Your task to perform on an android device: open app "WhatsApp Messenger" (install if not already installed), go to login, and select forgot password Image 0: 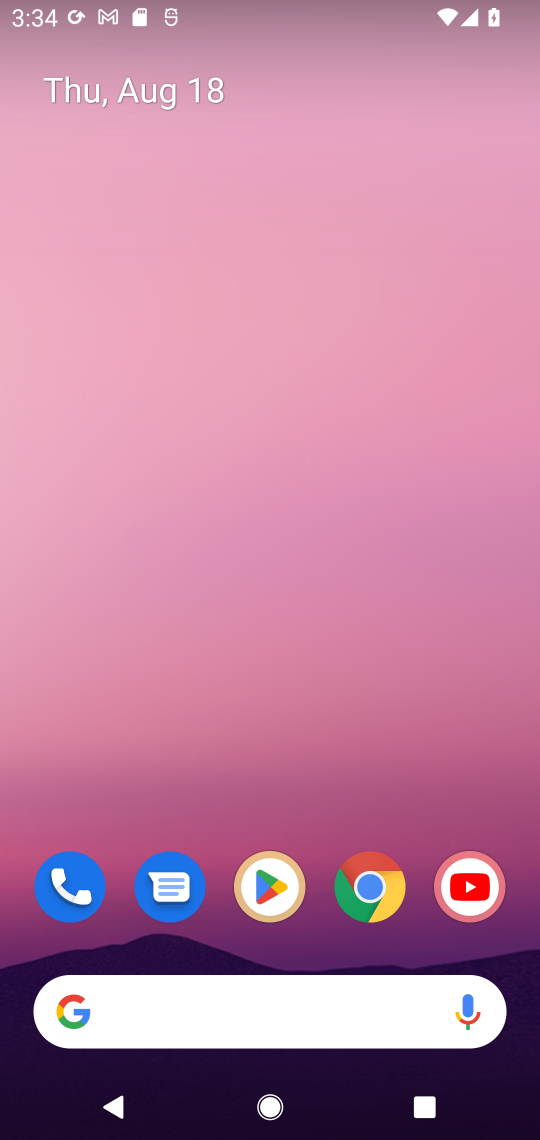
Step 0: press home button
Your task to perform on an android device: open app "WhatsApp Messenger" (install if not already installed), go to login, and select forgot password Image 1: 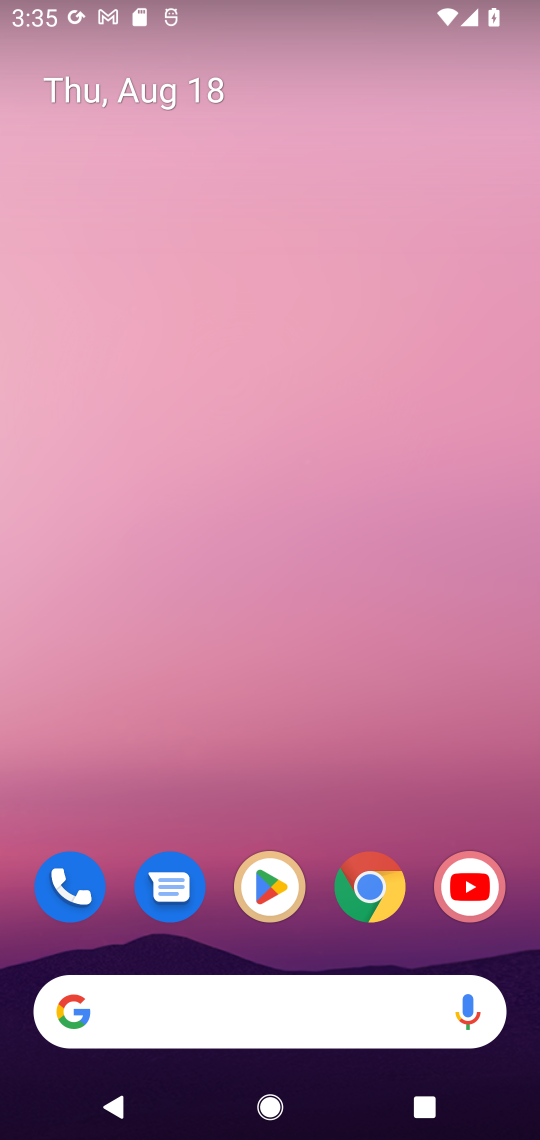
Step 1: click (270, 875)
Your task to perform on an android device: open app "WhatsApp Messenger" (install if not already installed), go to login, and select forgot password Image 2: 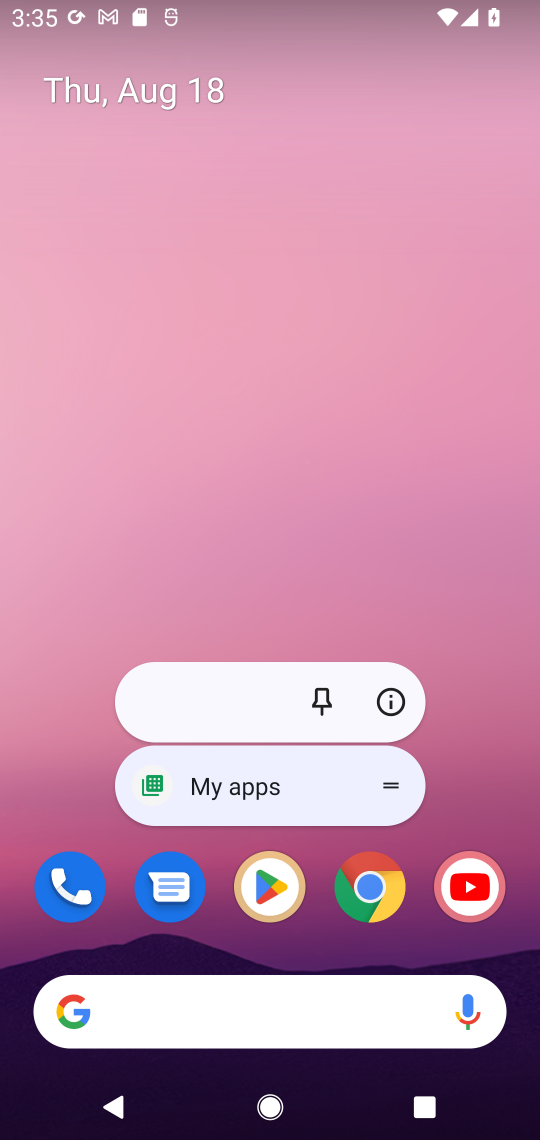
Step 2: click (266, 880)
Your task to perform on an android device: open app "WhatsApp Messenger" (install if not already installed), go to login, and select forgot password Image 3: 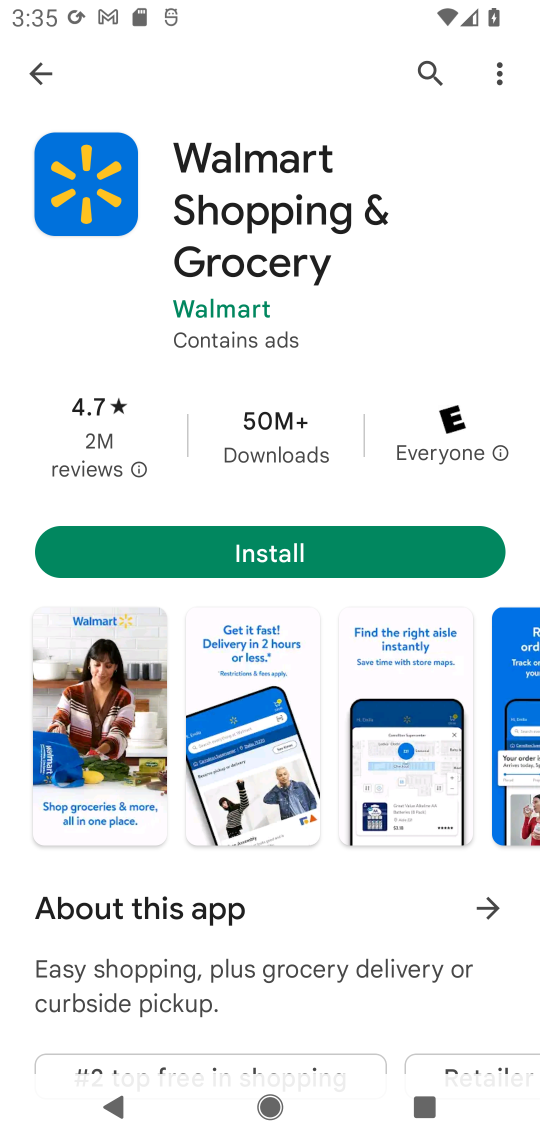
Step 3: click (443, 66)
Your task to perform on an android device: open app "WhatsApp Messenger" (install if not already installed), go to login, and select forgot password Image 4: 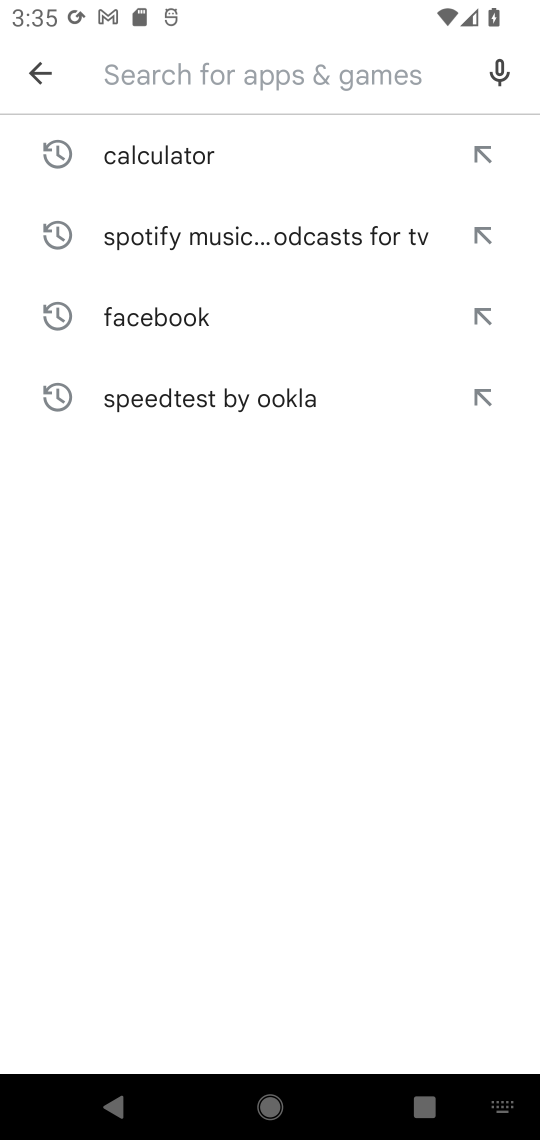
Step 4: type "WhatsApp Messenger"
Your task to perform on an android device: open app "WhatsApp Messenger" (install if not already installed), go to login, and select forgot password Image 5: 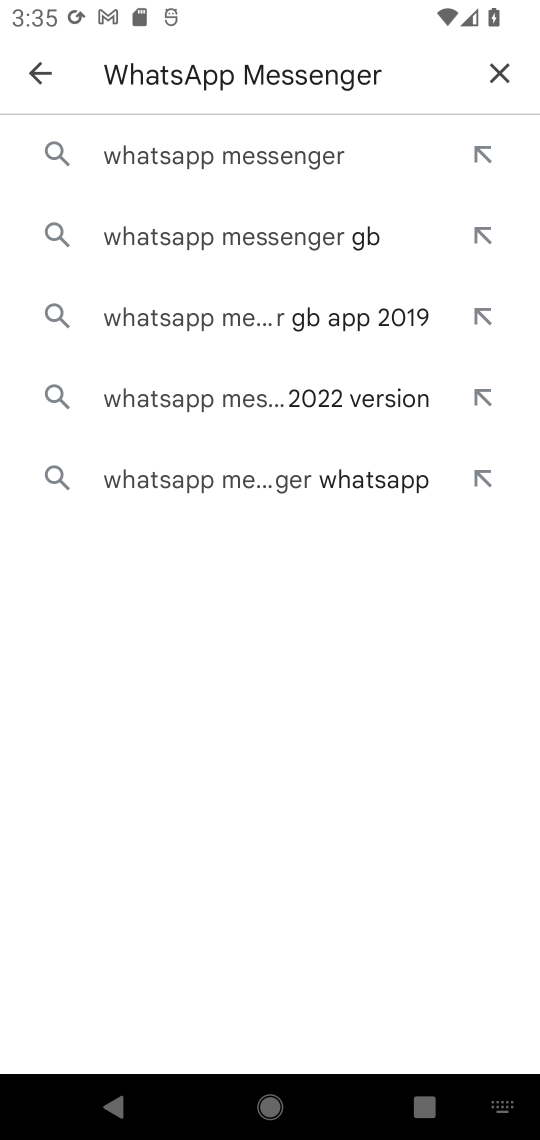
Step 5: click (274, 151)
Your task to perform on an android device: open app "WhatsApp Messenger" (install if not already installed), go to login, and select forgot password Image 6: 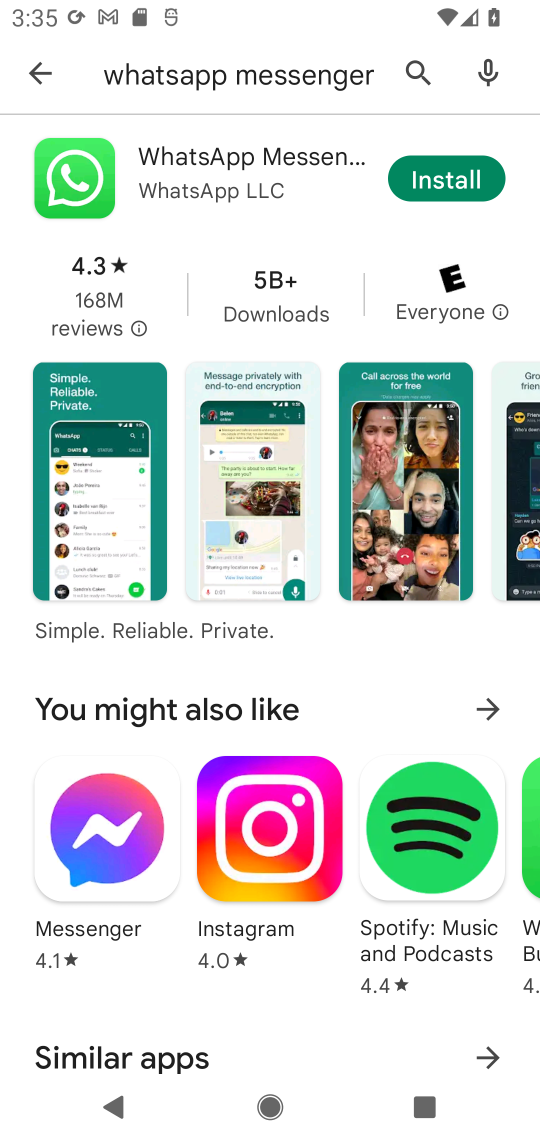
Step 6: click (448, 175)
Your task to perform on an android device: open app "WhatsApp Messenger" (install if not already installed), go to login, and select forgot password Image 7: 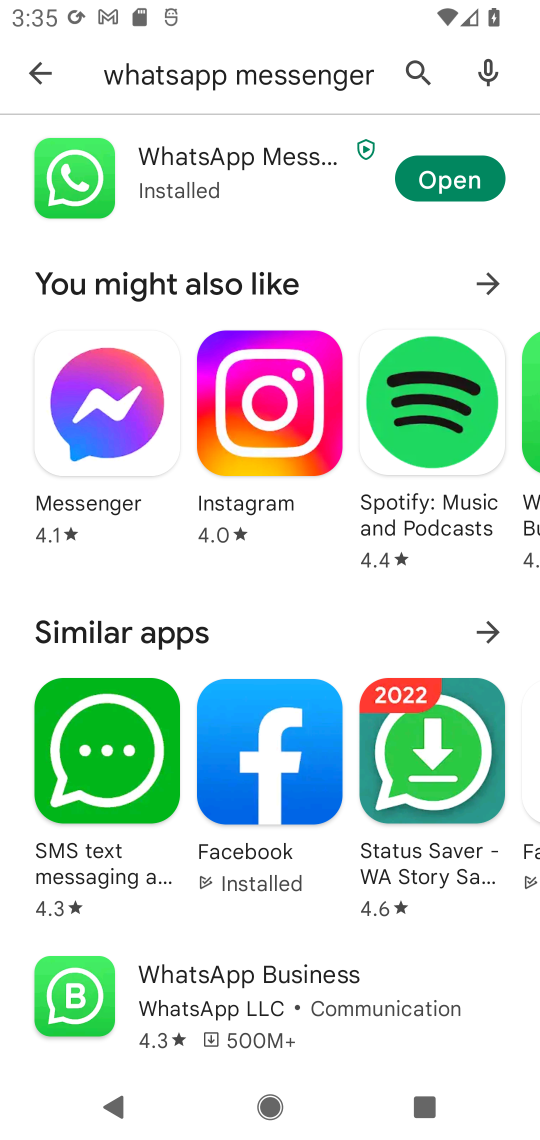
Step 7: click (457, 175)
Your task to perform on an android device: open app "WhatsApp Messenger" (install if not already installed), go to login, and select forgot password Image 8: 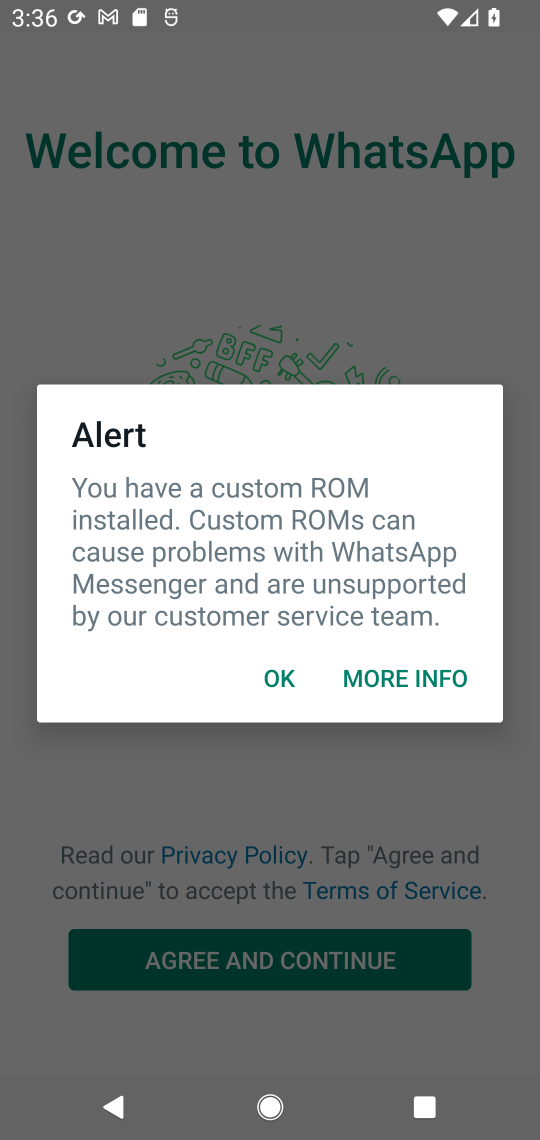
Step 8: click (274, 687)
Your task to perform on an android device: open app "WhatsApp Messenger" (install if not already installed), go to login, and select forgot password Image 9: 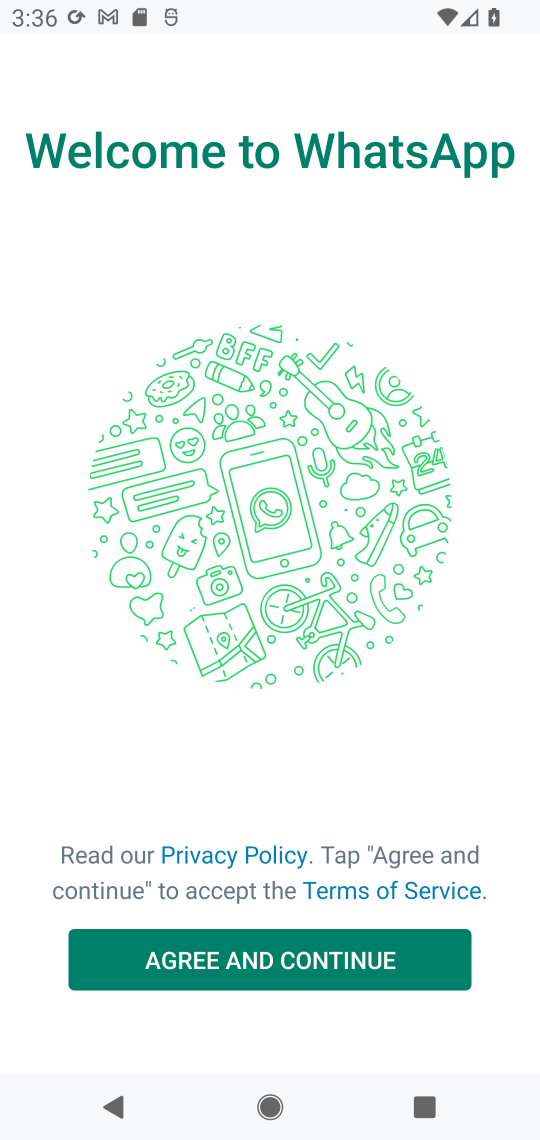
Step 9: click (264, 958)
Your task to perform on an android device: open app "WhatsApp Messenger" (install if not already installed), go to login, and select forgot password Image 10: 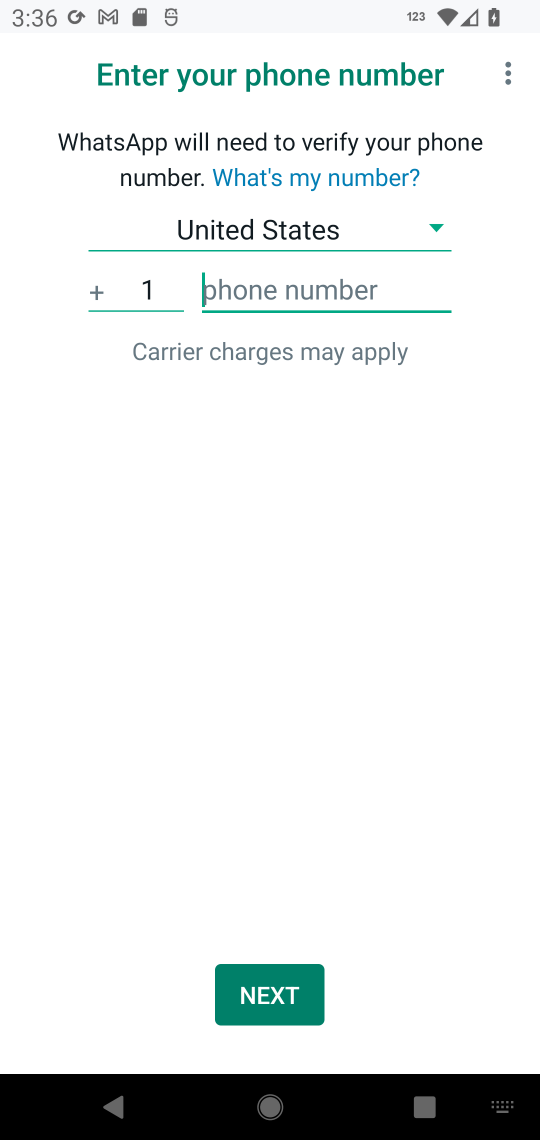
Step 10: task complete